Your task to perform on an android device: toggle priority inbox in the gmail app Image 0: 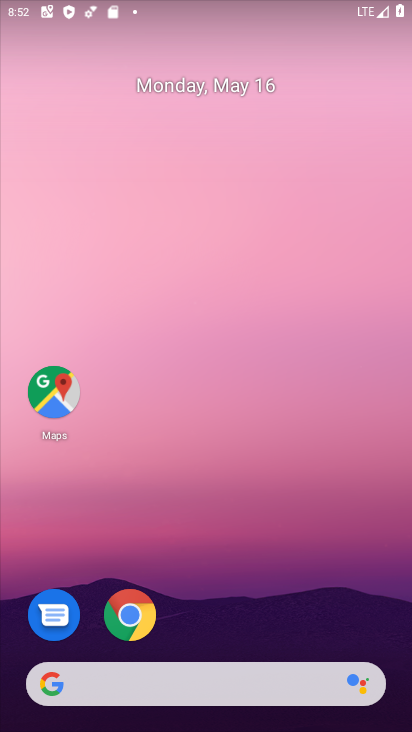
Step 0: drag from (234, 618) to (179, 199)
Your task to perform on an android device: toggle priority inbox in the gmail app Image 1: 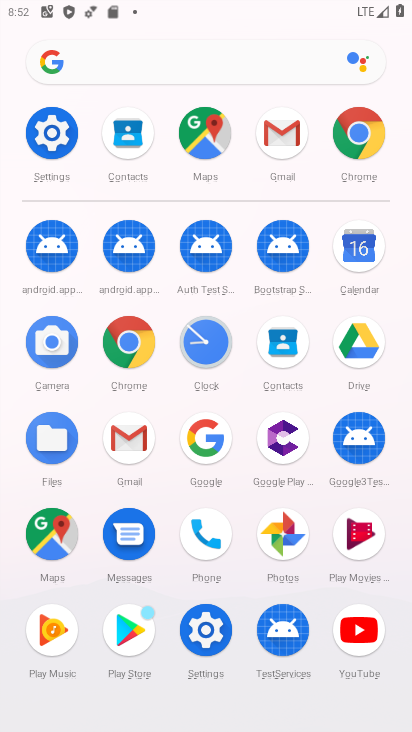
Step 1: click (138, 466)
Your task to perform on an android device: toggle priority inbox in the gmail app Image 2: 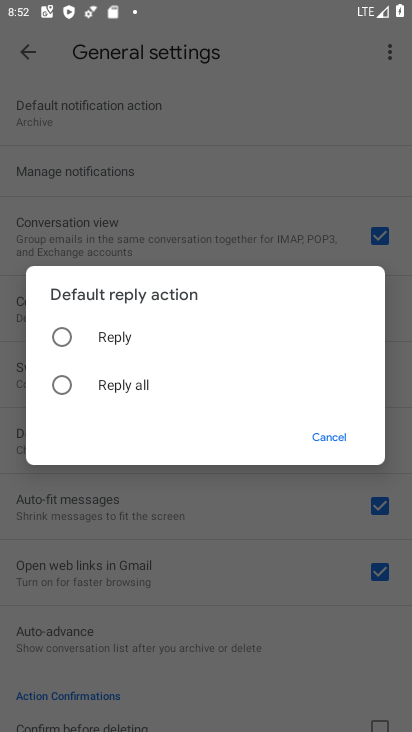
Step 2: click (186, 632)
Your task to perform on an android device: toggle priority inbox in the gmail app Image 3: 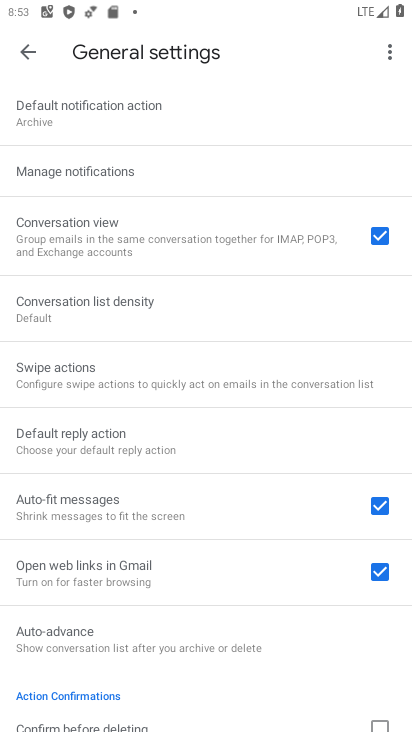
Step 3: click (26, 56)
Your task to perform on an android device: toggle priority inbox in the gmail app Image 4: 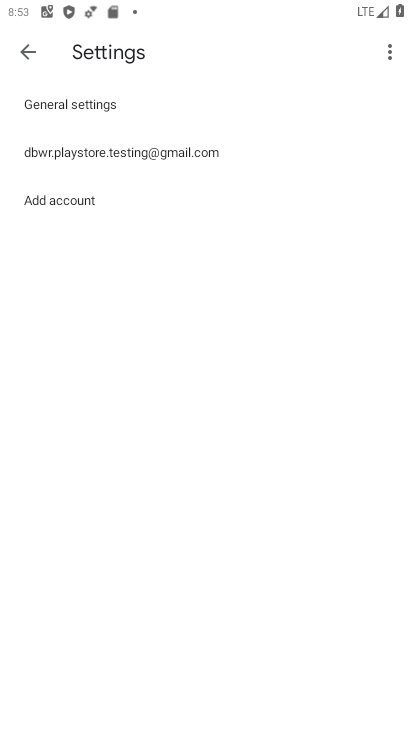
Step 4: click (78, 154)
Your task to perform on an android device: toggle priority inbox in the gmail app Image 5: 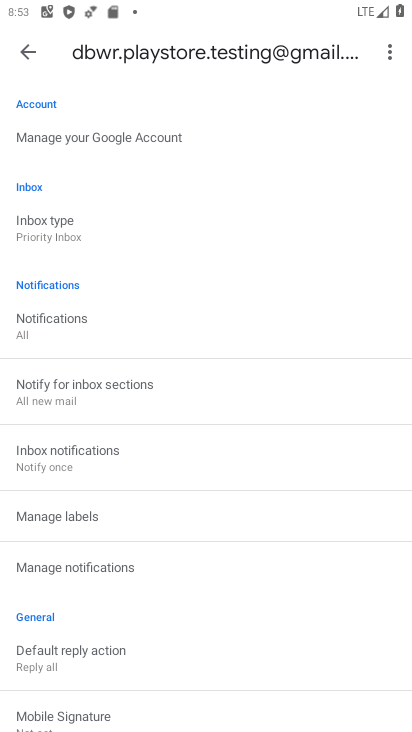
Step 5: click (80, 232)
Your task to perform on an android device: toggle priority inbox in the gmail app Image 6: 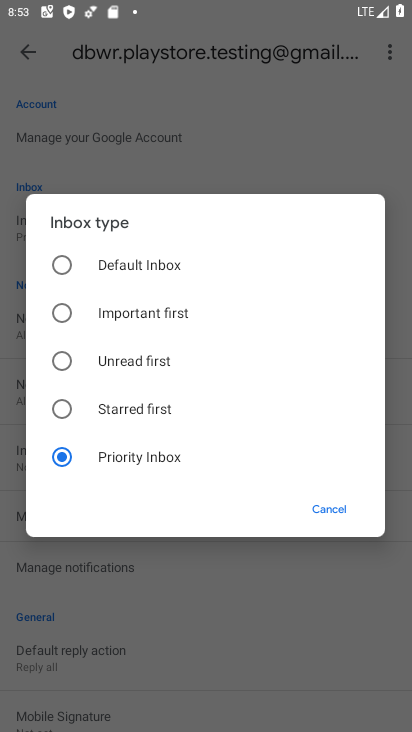
Step 6: click (82, 263)
Your task to perform on an android device: toggle priority inbox in the gmail app Image 7: 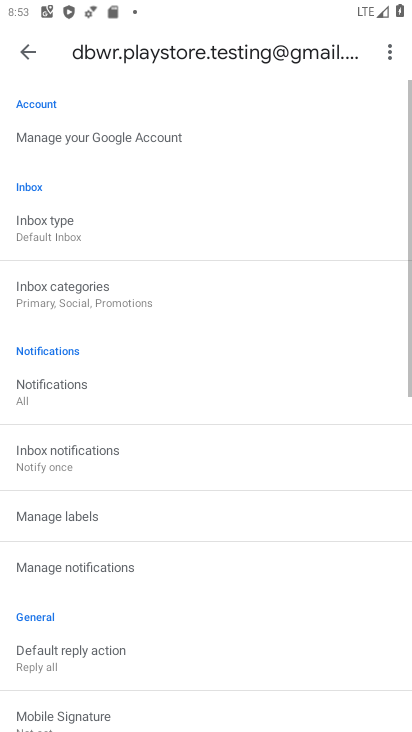
Step 7: task complete